Your task to perform on an android device: When is my next meeting? Image 0: 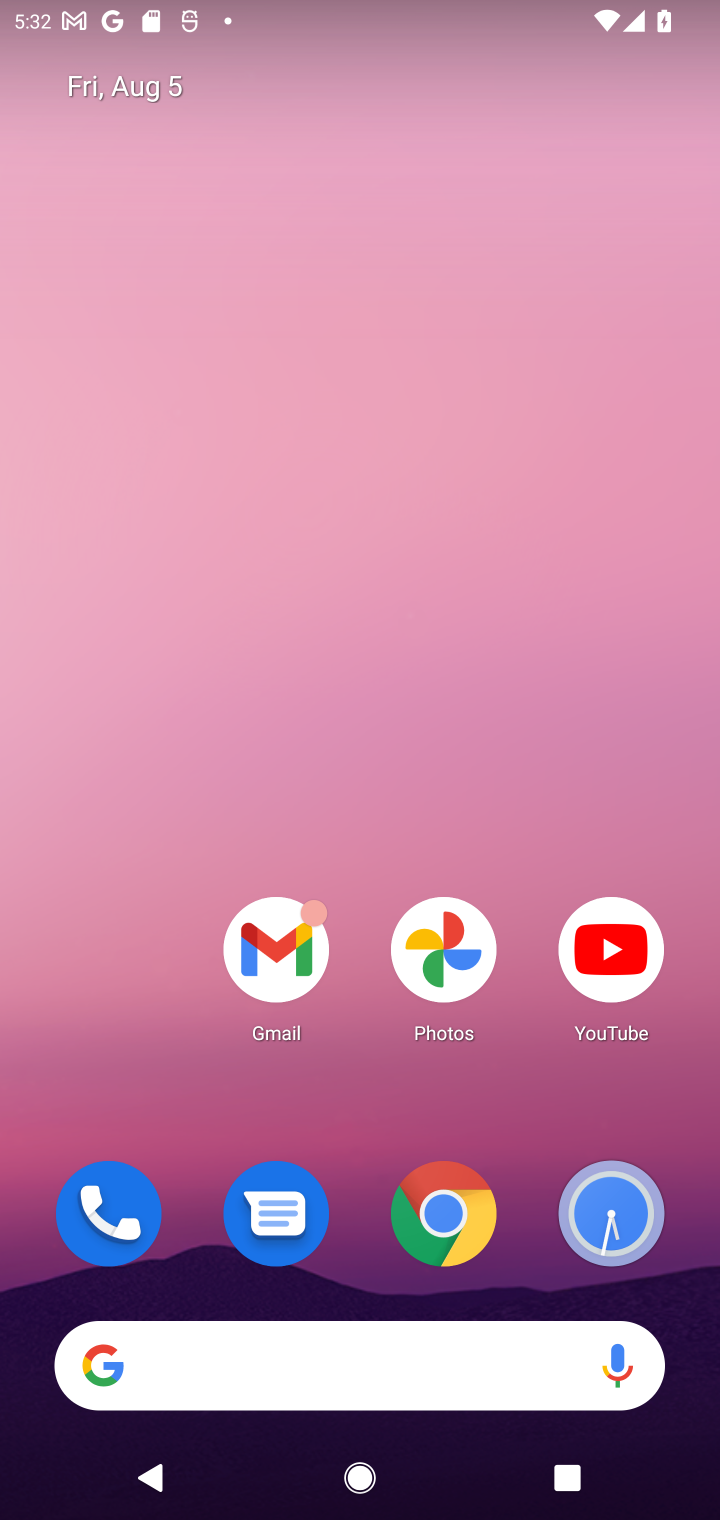
Step 0: drag from (353, 1299) to (388, 495)
Your task to perform on an android device: When is my next meeting? Image 1: 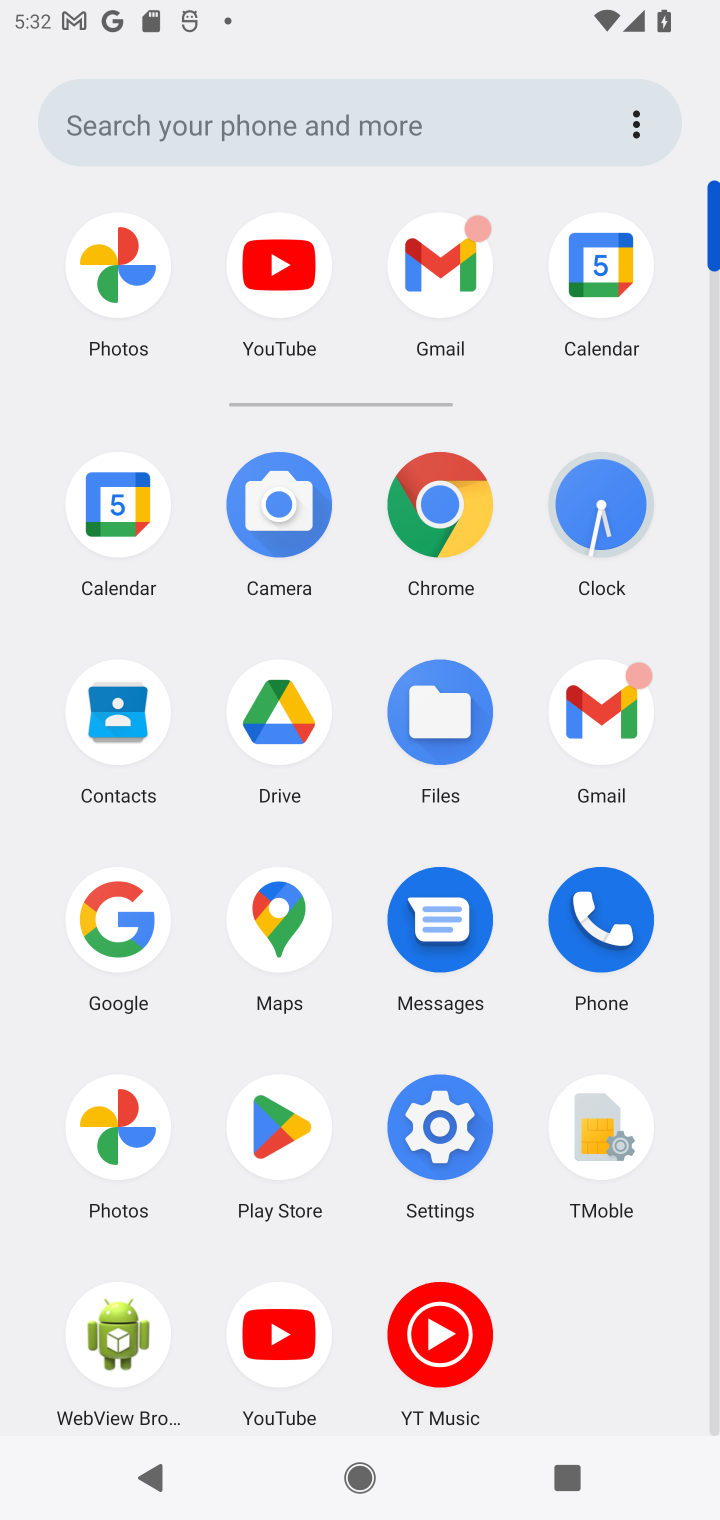
Step 1: click (428, 1150)
Your task to perform on an android device: When is my next meeting? Image 2: 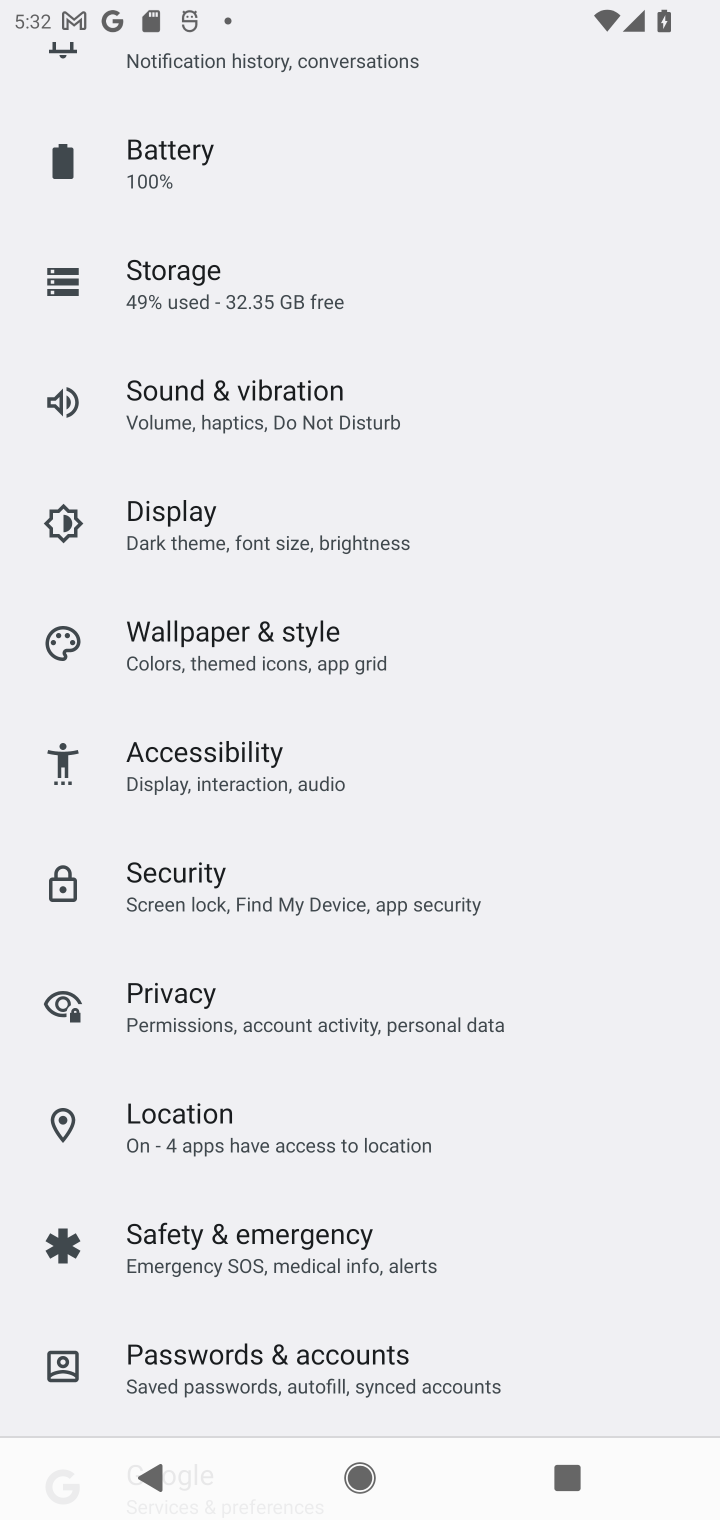
Step 2: task complete